Your task to perform on an android device: Open Wikipedia Image 0: 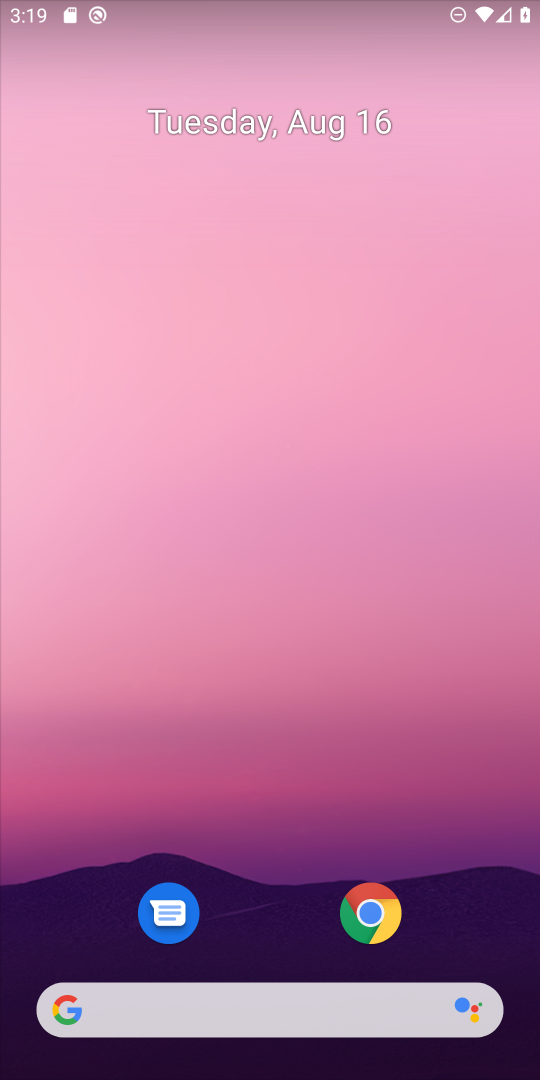
Step 0: click (369, 914)
Your task to perform on an android device: Open Wikipedia Image 1: 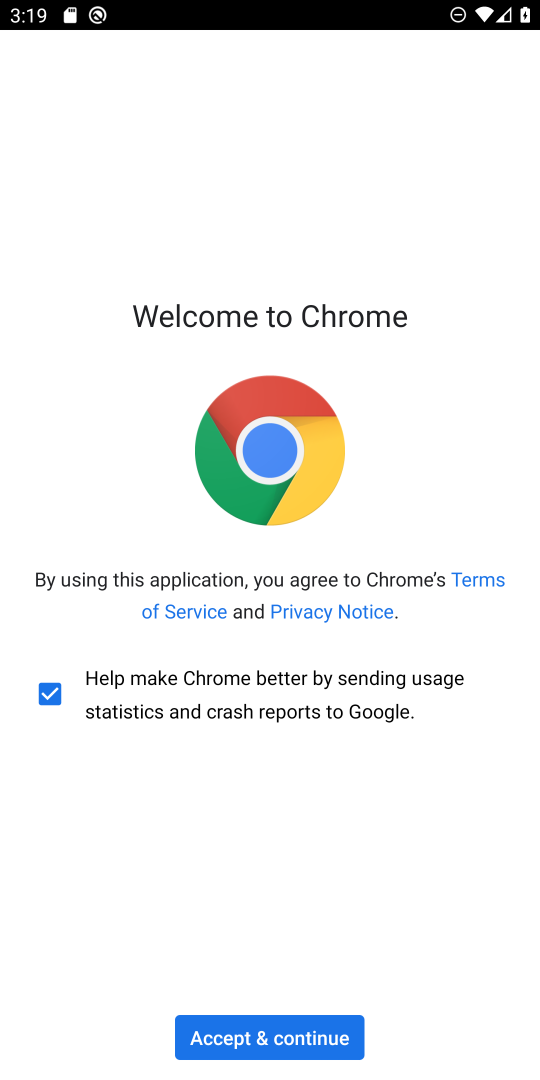
Step 1: click (293, 1032)
Your task to perform on an android device: Open Wikipedia Image 2: 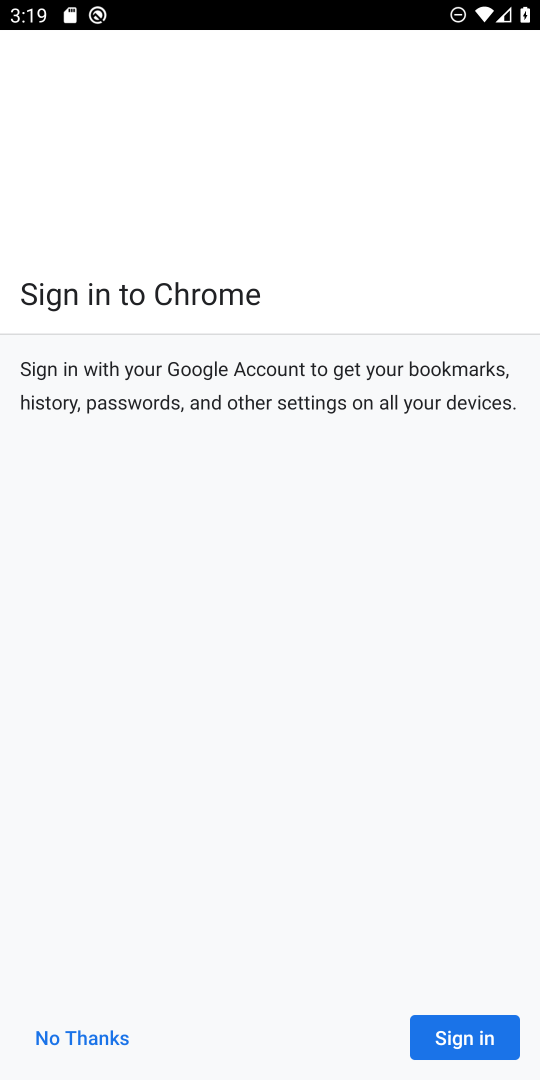
Step 2: click (82, 1035)
Your task to perform on an android device: Open Wikipedia Image 3: 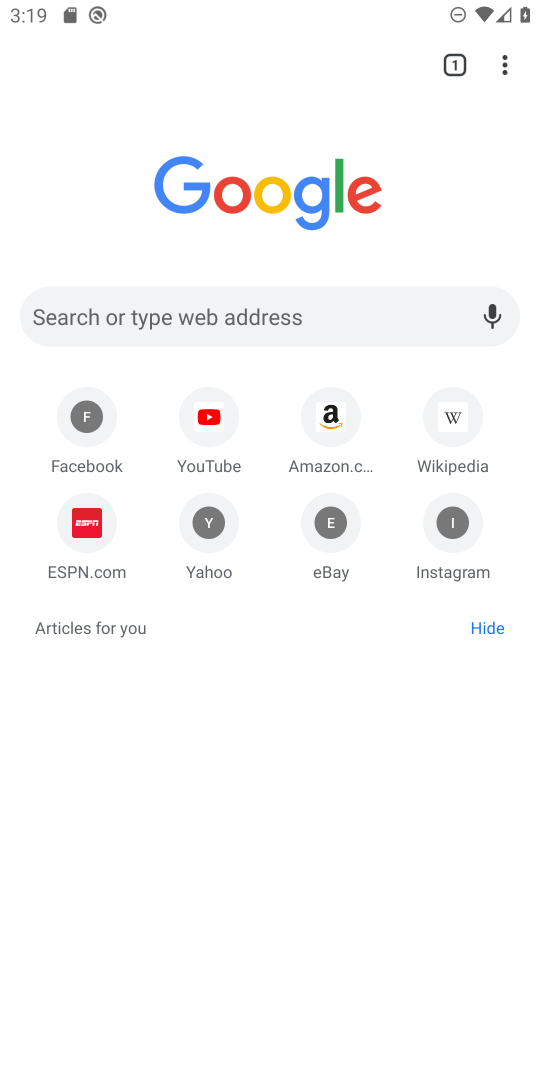
Step 3: click (217, 304)
Your task to perform on an android device: Open Wikipedia Image 4: 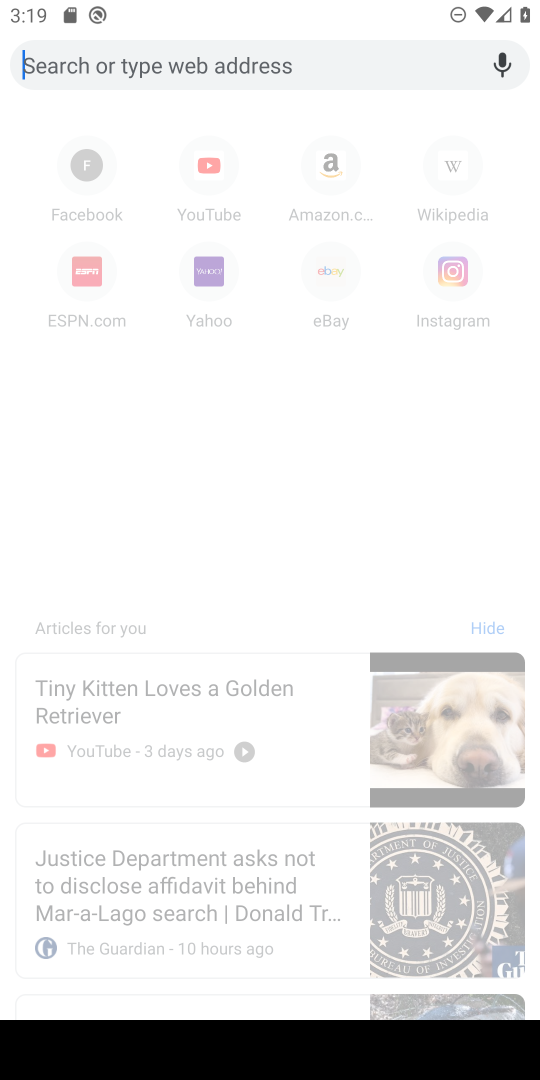
Step 4: type "wikipedia"
Your task to perform on an android device: Open Wikipedia Image 5: 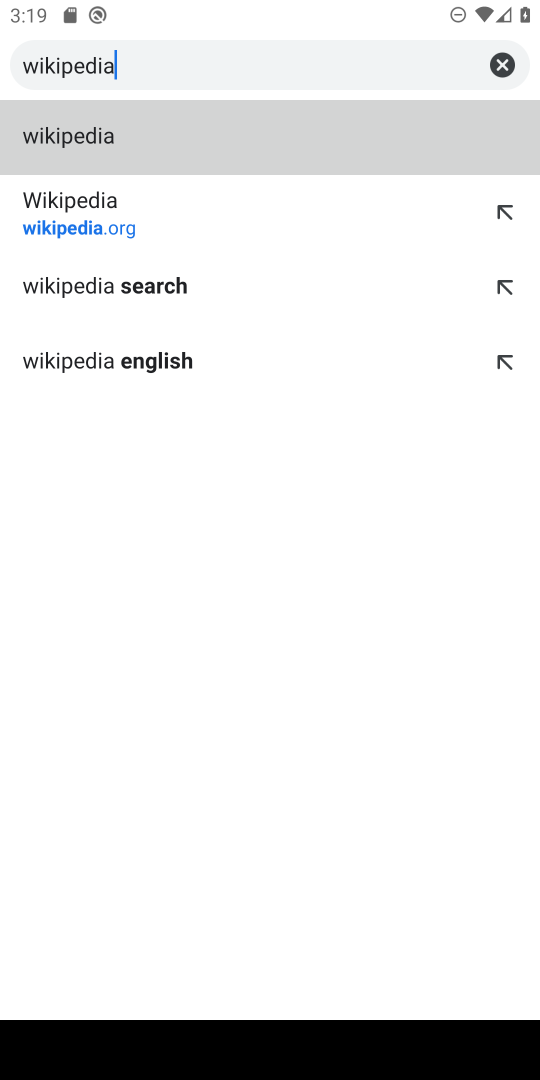
Step 5: click (86, 135)
Your task to perform on an android device: Open Wikipedia Image 6: 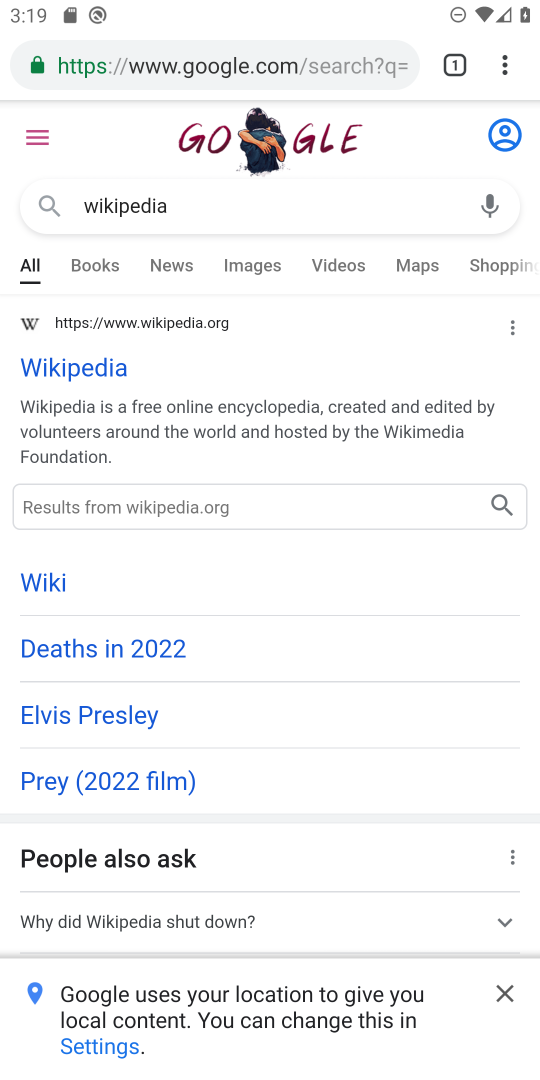
Step 6: click (77, 360)
Your task to perform on an android device: Open Wikipedia Image 7: 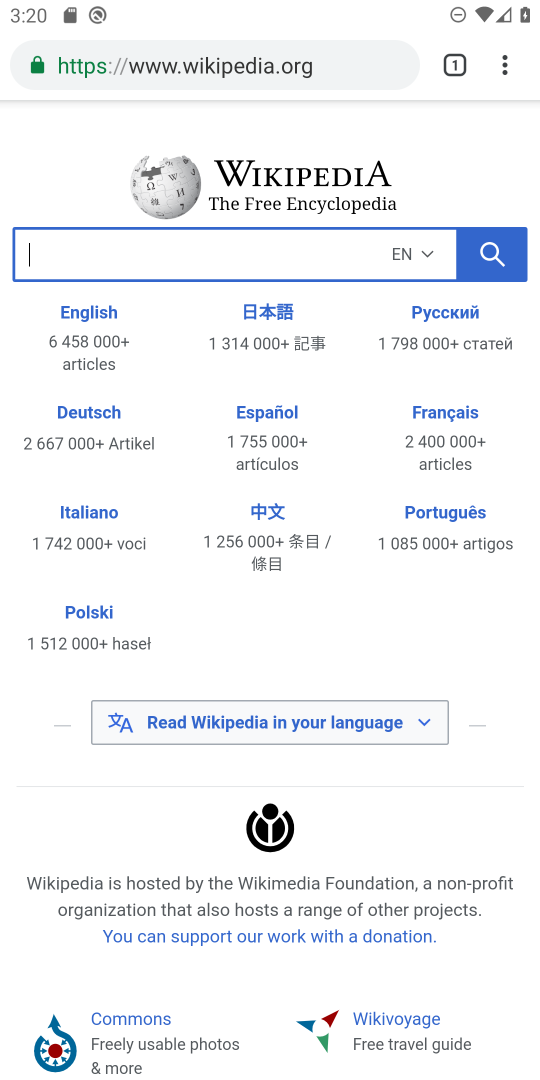
Step 7: task complete